Your task to perform on an android device: delete the emails in spam in the gmail app Image 0: 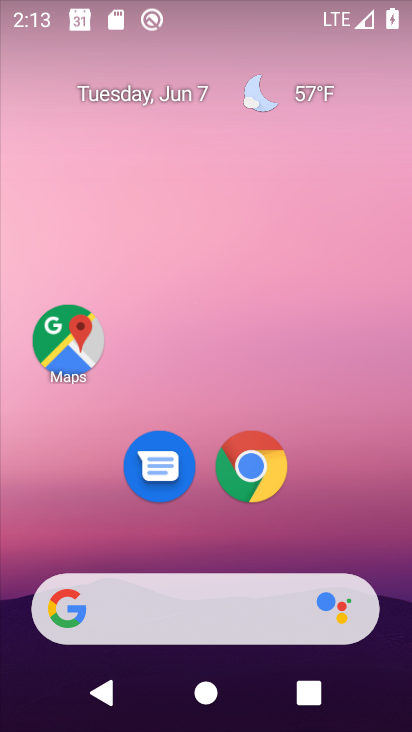
Step 0: drag from (235, 497) to (251, 4)
Your task to perform on an android device: delete the emails in spam in the gmail app Image 1: 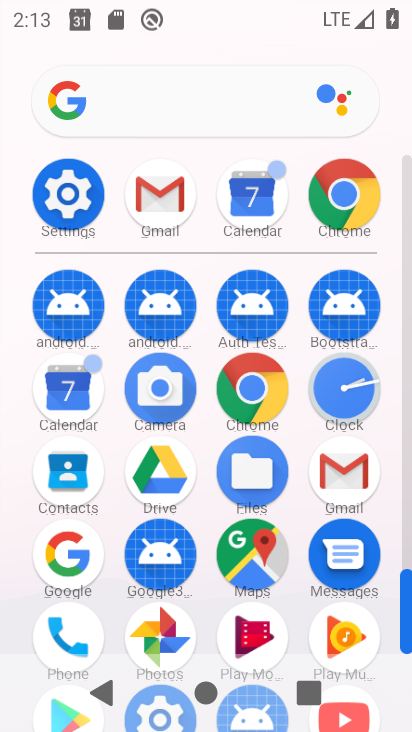
Step 1: click (159, 197)
Your task to perform on an android device: delete the emails in spam in the gmail app Image 2: 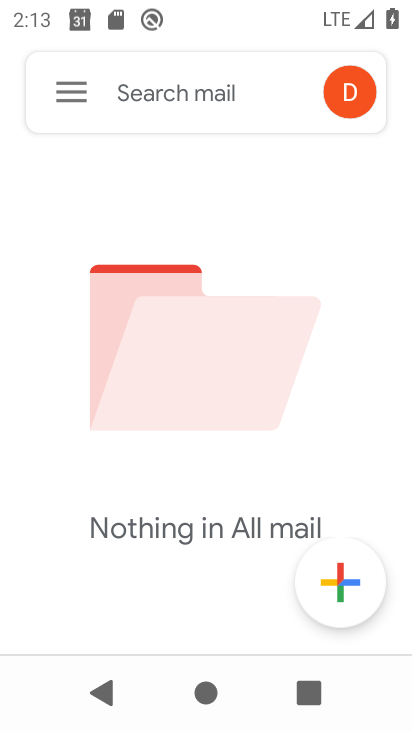
Step 2: click (72, 79)
Your task to perform on an android device: delete the emails in spam in the gmail app Image 3: 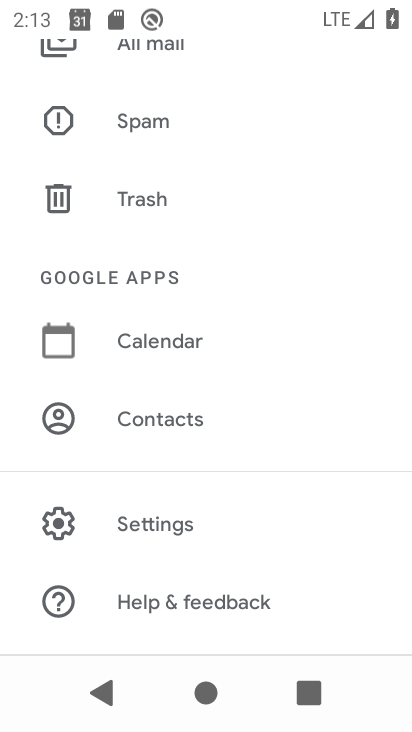
Step 3: click (154, 127)
Your task to perform on an android device: delete the emails in spam in the gmail app Image 4: 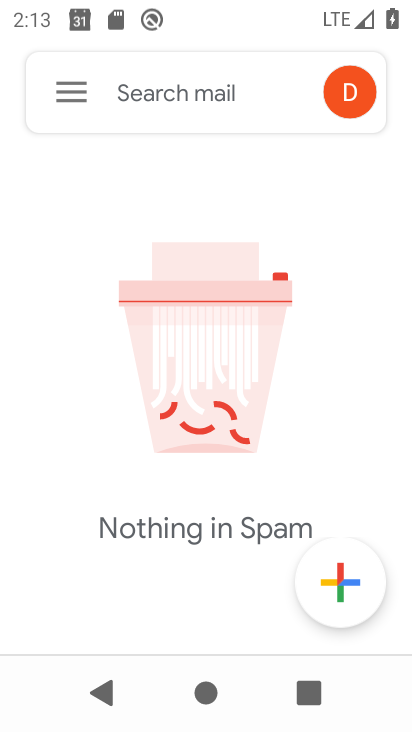
Step 4: task complete